Your task to perform on an android device: Search for flights from Buenos aires to Helsinki Image 0: 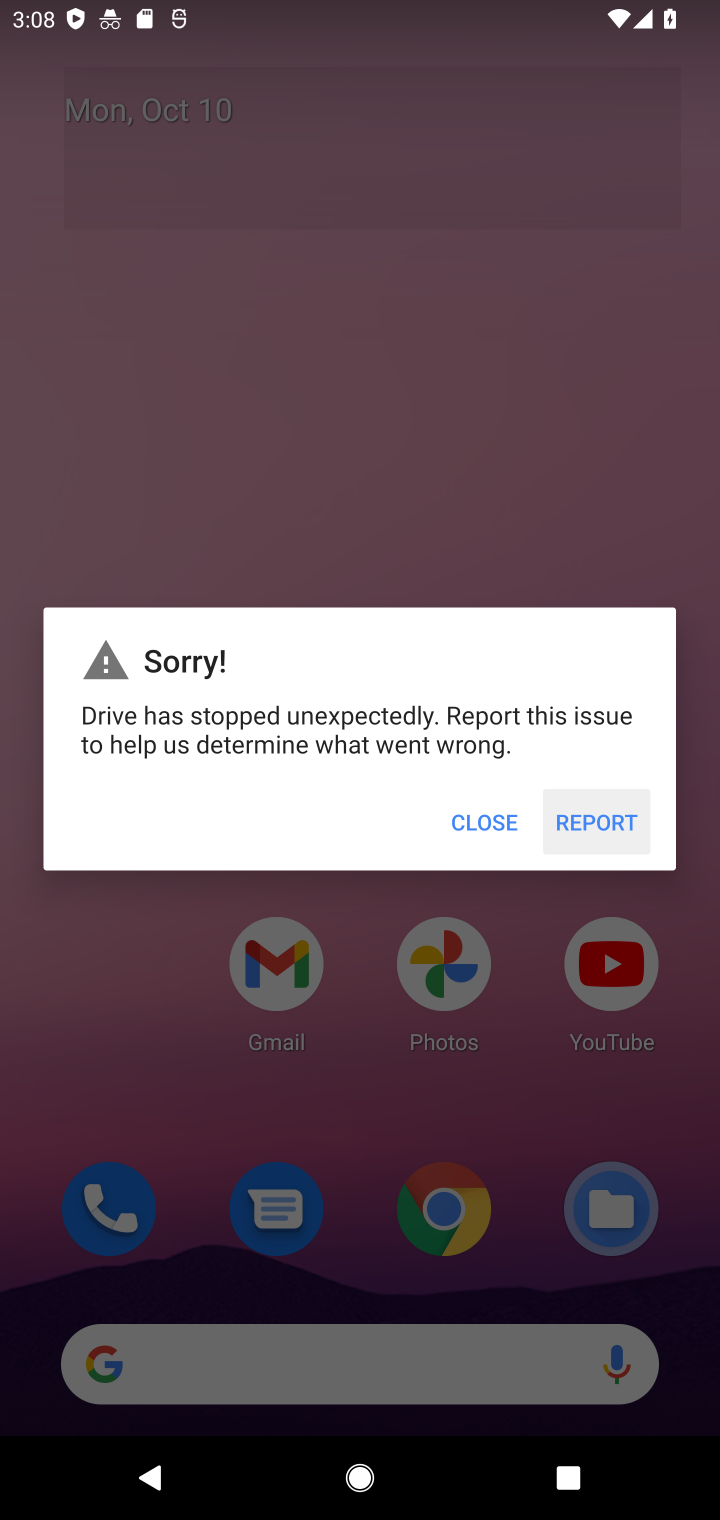
Step 0: click (480, 809)
Your task to perform on an android device: Search for flights from Buenos aires to Helsinki Image 1: 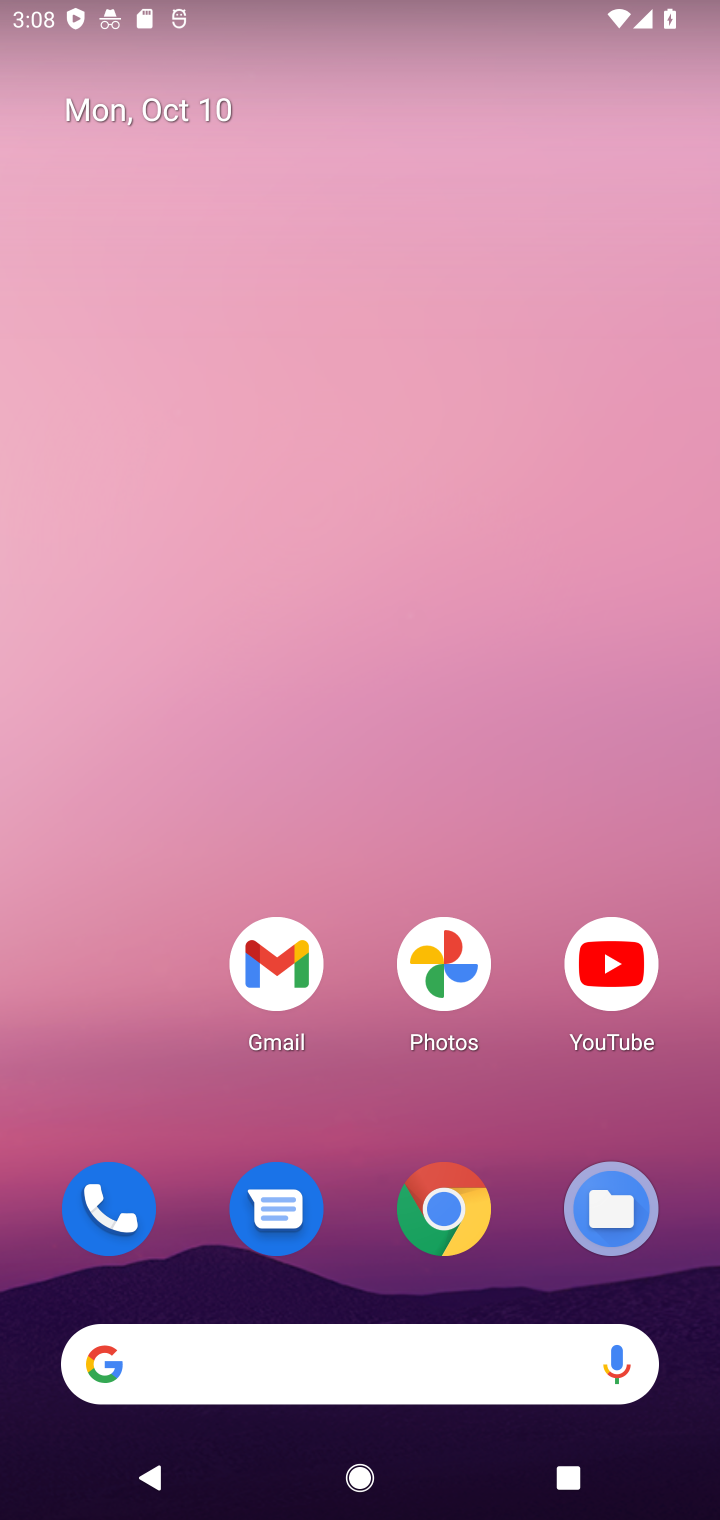
Step 1: click (423, 1195)
Your task to perform on an android device: Search for flights from Buenos aires to Helsinki Image 2: 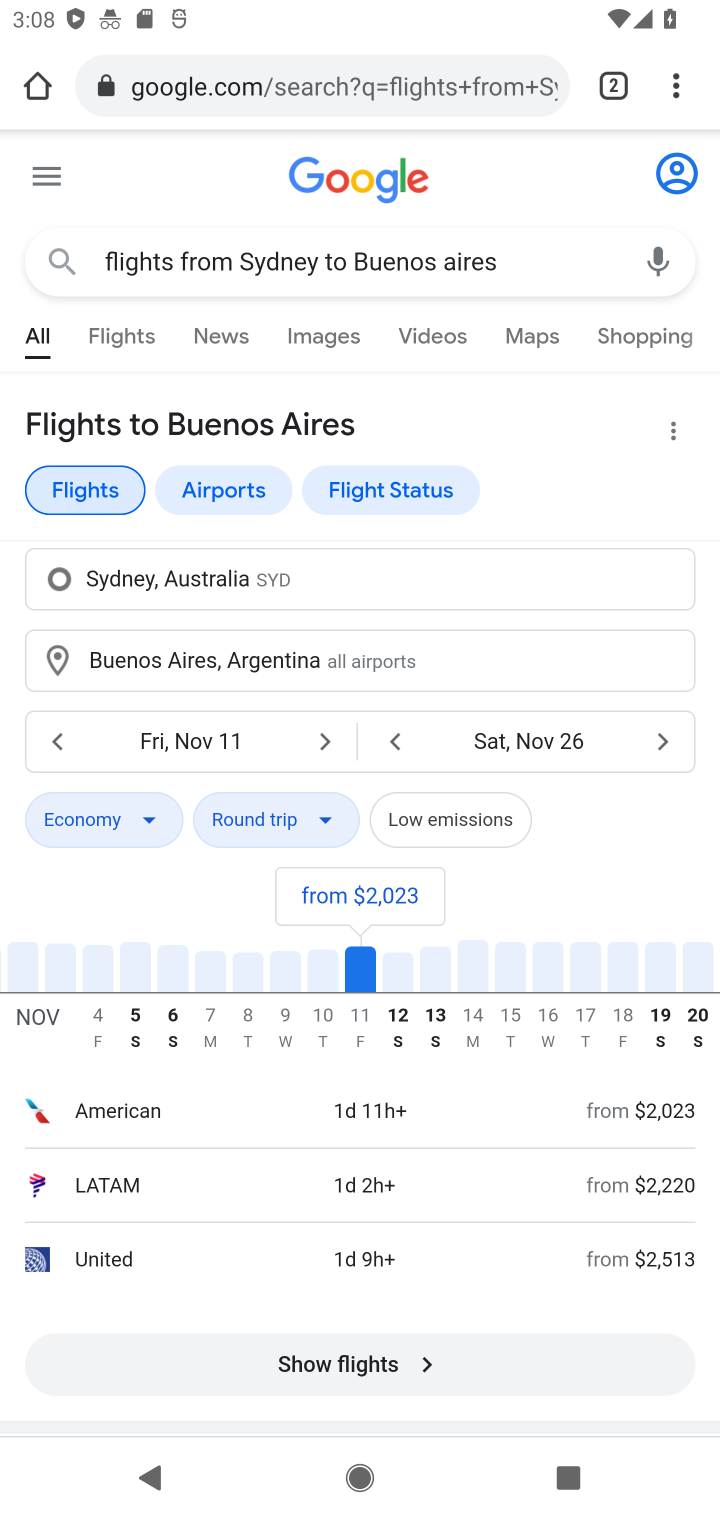
Step 2: click (528, 252)
Your task to perform on an android device: Search for flights from Buenos aires to Helsinki Image 3: 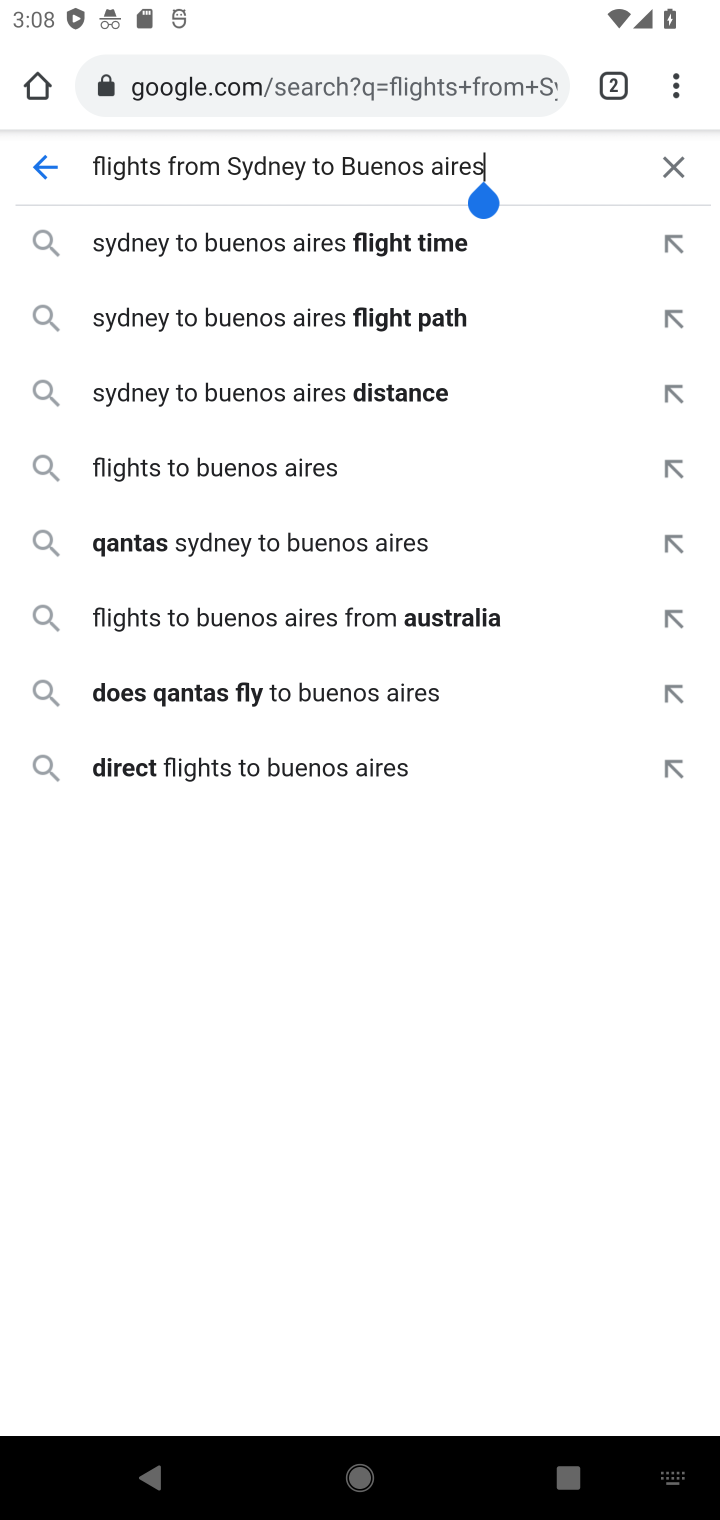
Step 3: click (664, 177)
Your task to perform on an android device: Search for flights from Buenos aires to Helsinki Image 4: 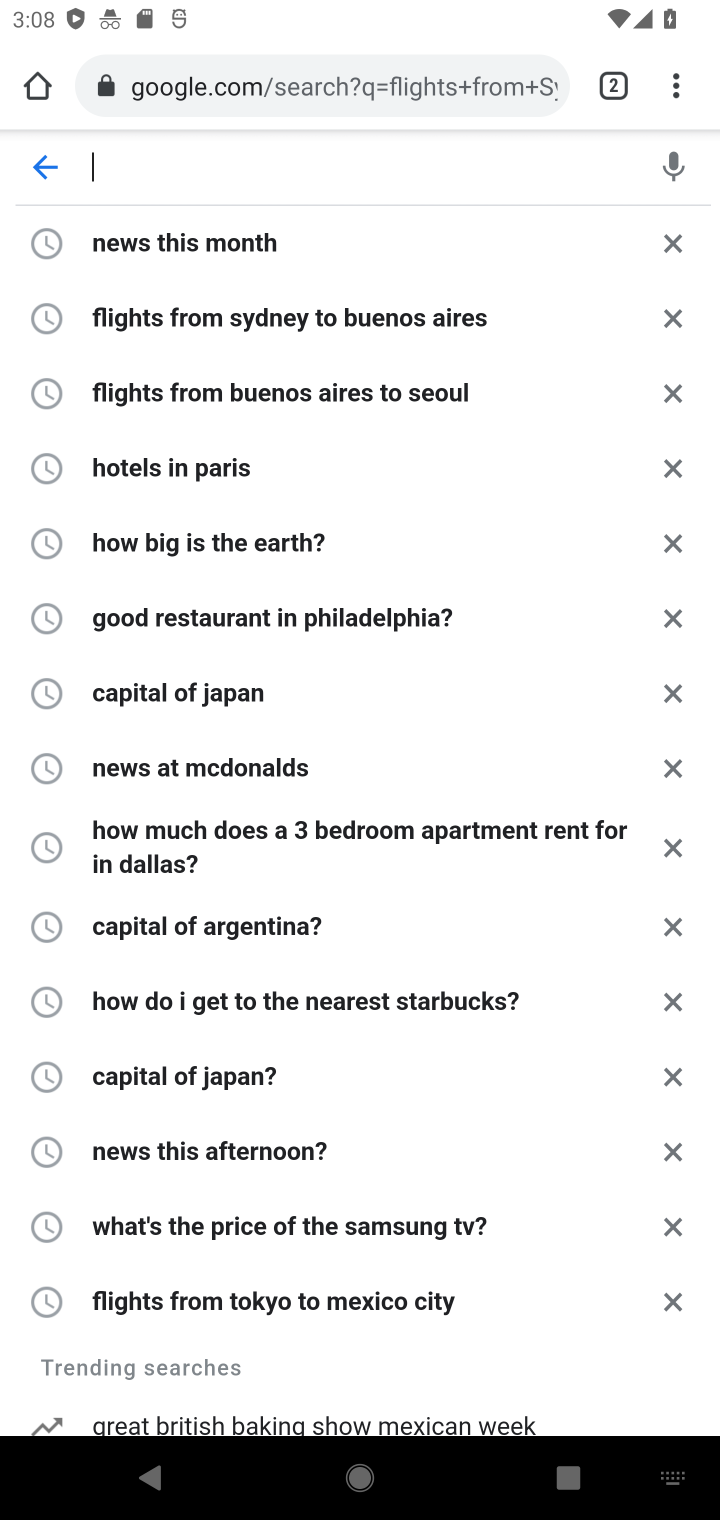
Step 4: type "flights from Buenos aires to Helsinki"
Your task to perform on an android device: Search for flights from Buenos aires to Helsinki Image 5: 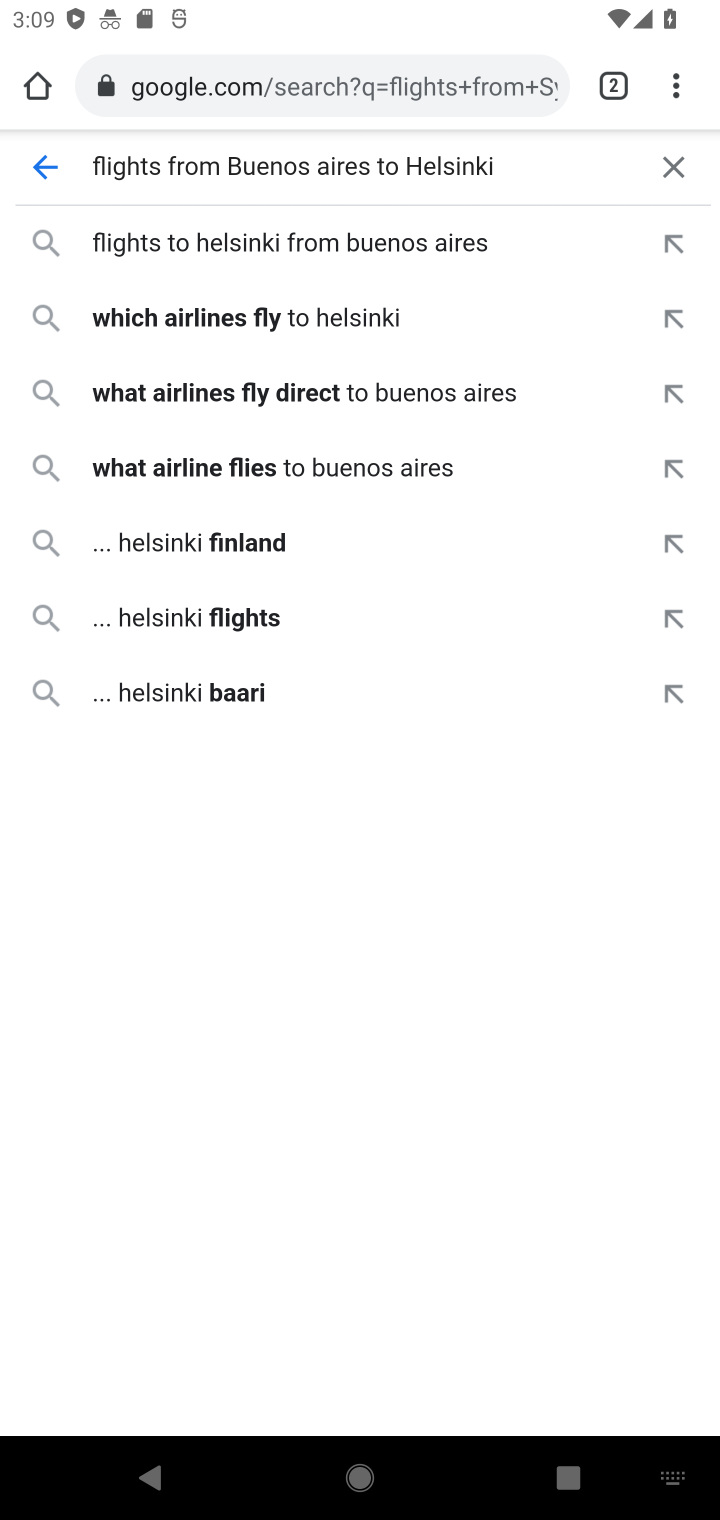
Step 5: press enter
Your task to perform on an android device: Search for flights from Buenos aires to Helsinki Image 6: 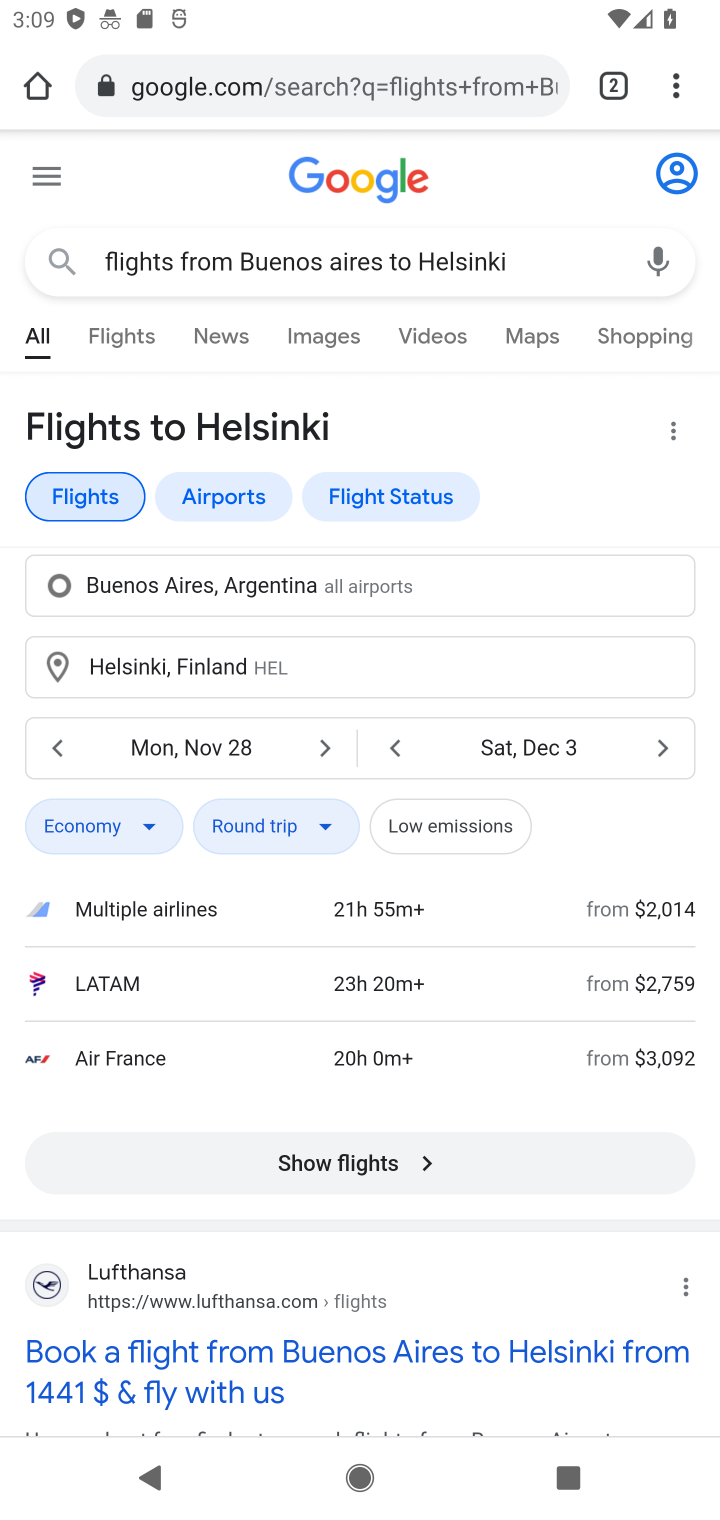
Step 6: task complete